Your task to perform on an android device: turn off notifications in google photos Image 0: 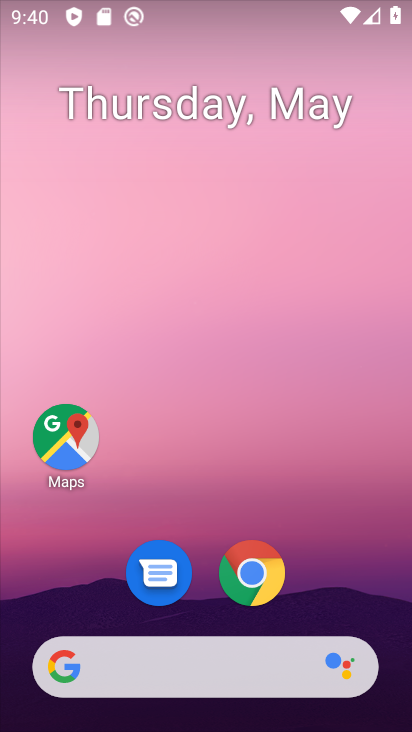
Step 0: drag from (199, 610) to (212, 214)
Your task to perform on an android device: turn off notifications in google photos Image 1: 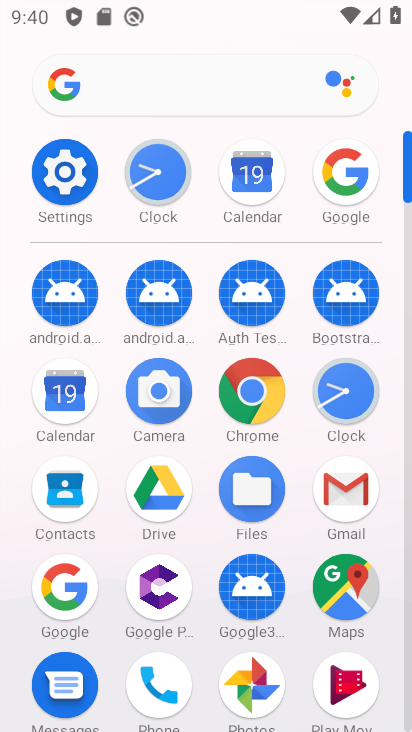
Step 1: click (255, 664)
Your task to perform on an android device: turn off notifications in google photos Image 2: 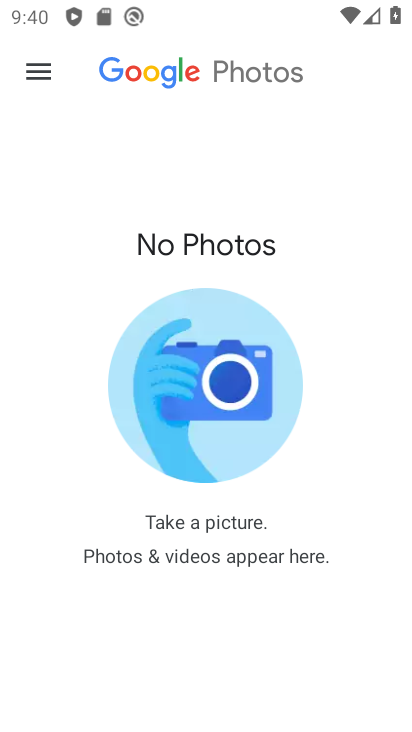
Step 2: click (53, 59)
Your task to perform on an android device: turn off notifications in google photos Image 3: 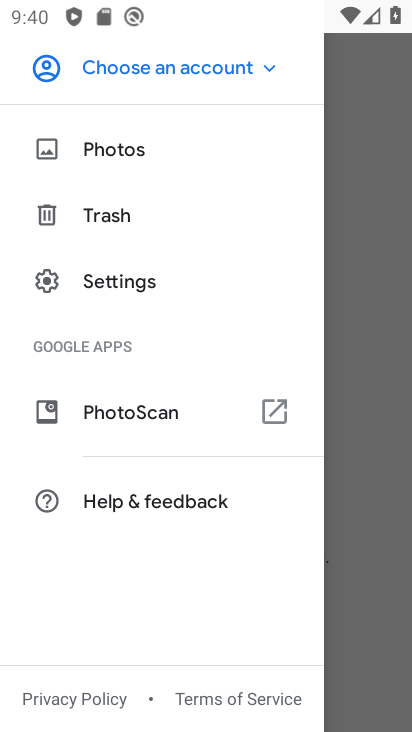
Step 3: click (107, 284)
Your task to perform on an android device: turn off notifications in google photos Image 4: 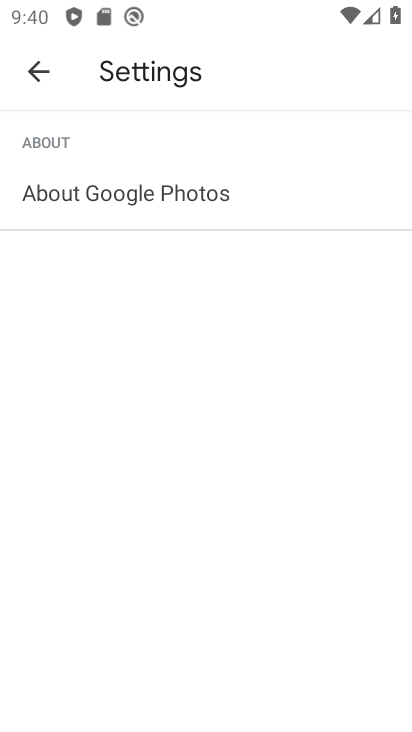
Step 4: click (36, 79)
Your task to perform on an android device: turn off notifications in google photos Image 5: 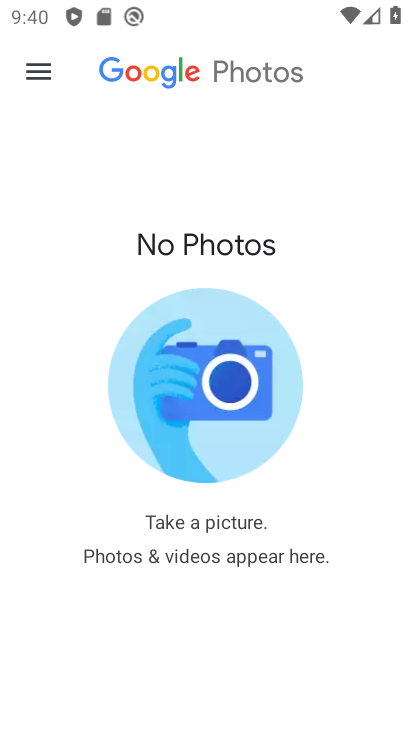
Step 5: click (36, 79)
Your task to perform on an android device: turn off notifications in google photos Image 6: 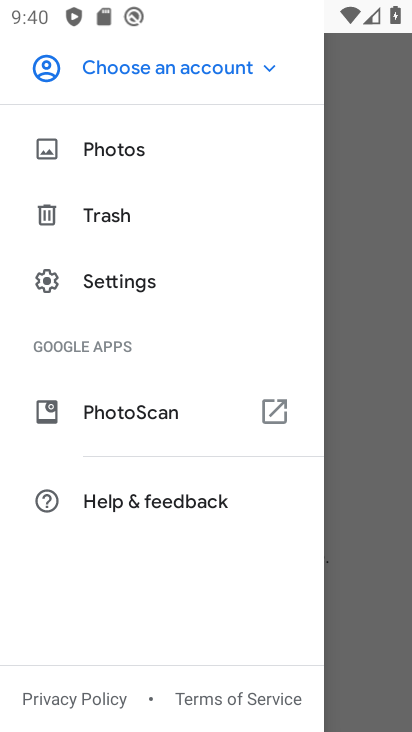
Step 6: click (158, 71)
Your task to perform on an android device: turn off notifications in google photos Image 7: 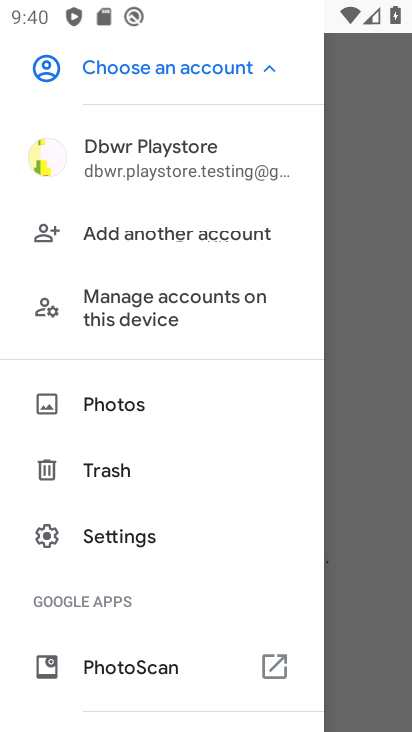
Step 7: click (141, 166)
Your task to perform on an android device: turn off notifications in google photos Image 8: 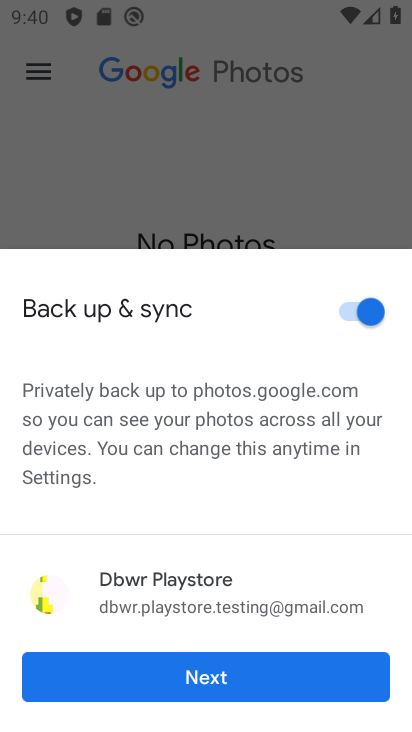
Step 8: click (190, 681)
Your task to perform on an android device: turn off notifications in google photos Image 9: 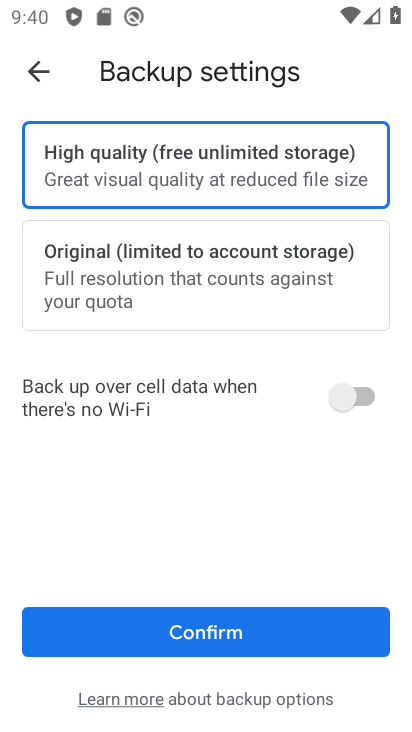
Step 9: click (200, 637)
Your task to perform on an android device: turn off notifications in google photos Image 10: 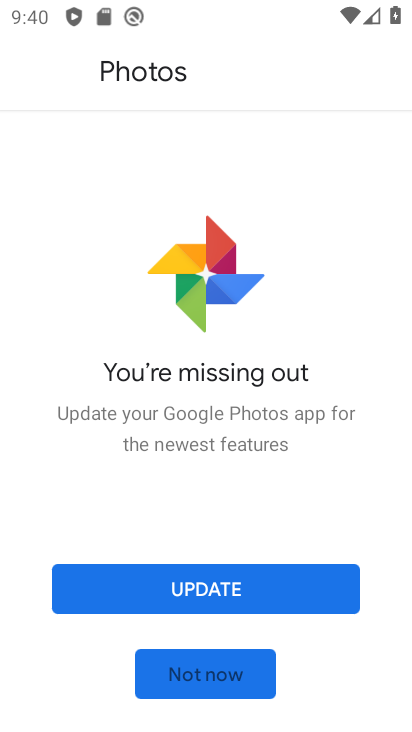
Step 10: click (209, 683)
Your task to perform on an android device: turn off notifications in google photos Image 11: 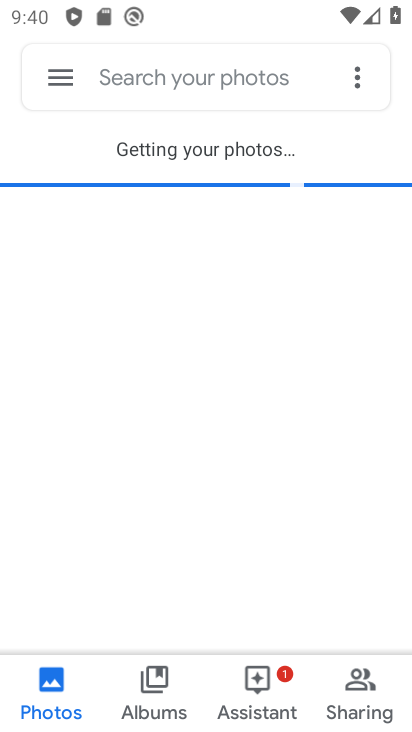
Step 11: click (42, 84)
Your task to perform on an android device: turn off notifications in google photos Image 12: 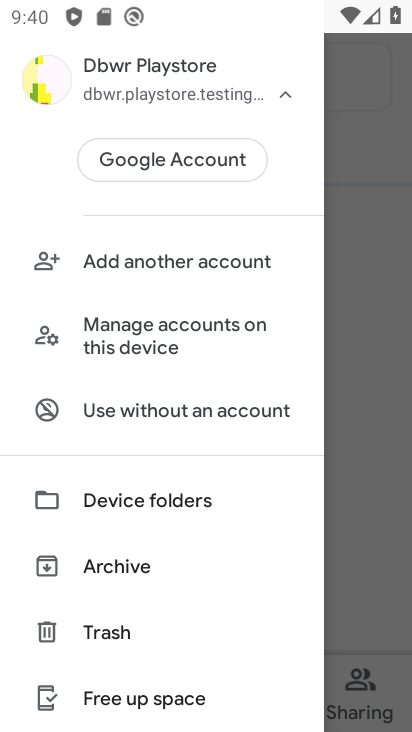
Step 12: drag from (174, 666) to (208, 237)
Your task to perform on an android device: turn off notifications in google photos Image 13: 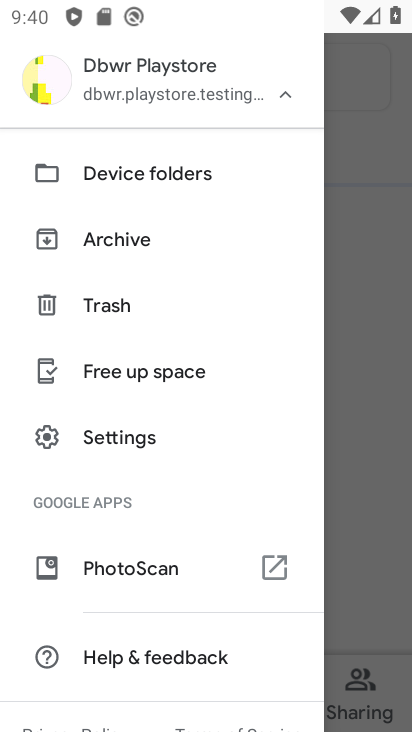
Step 13: click (118, 433)
Your task to perform on an android device: turn off notifications in google photos Image 14: 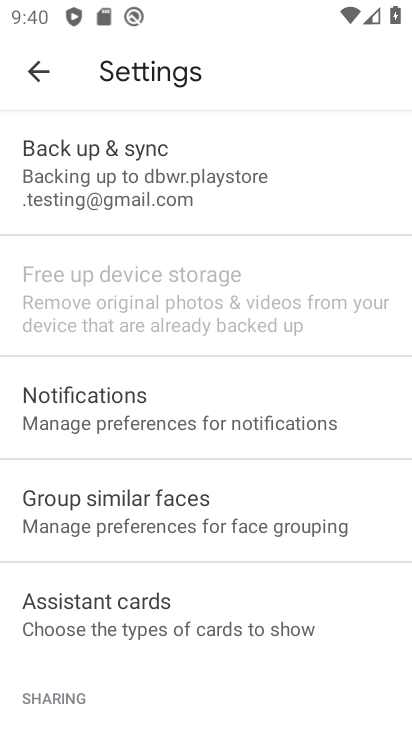
Step 14: click (130, 407)
Your task to perform on an android device: turn off notifications in google photos Image 15: 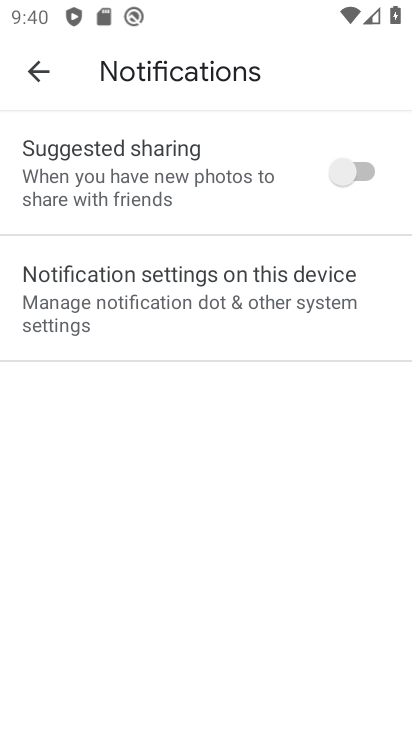
Step 15: click (171, 339)
Your task to perform on an android device: turn off notifications in google photos Image 16: 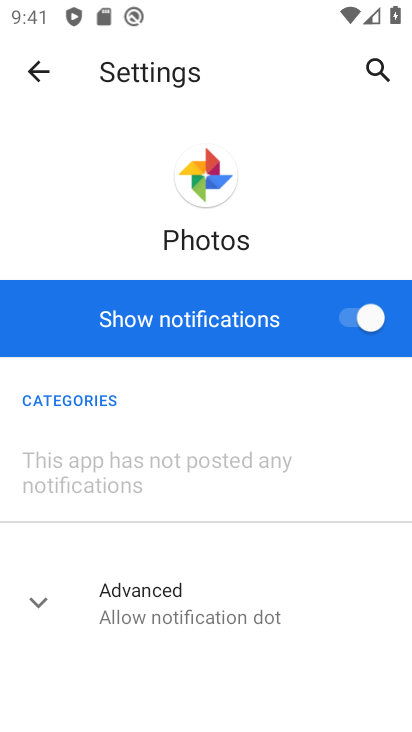
Step 16: click (335, 314)
Your task to perform on an android device: turn off notifications in google photos Image 17: 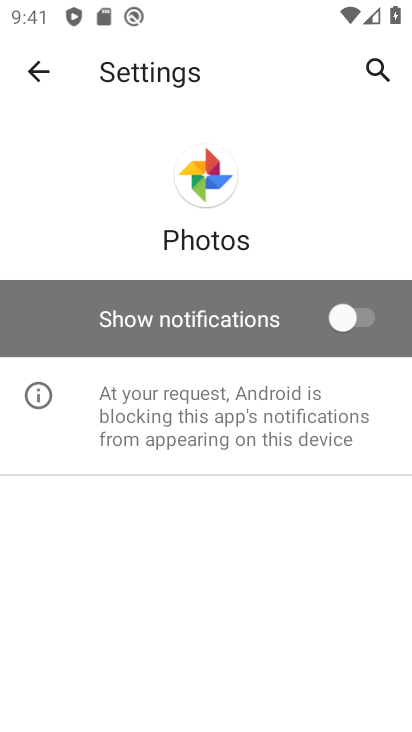
Step 17: task complete